Your task to perform on an android device: When is my next appointment? Image 0: 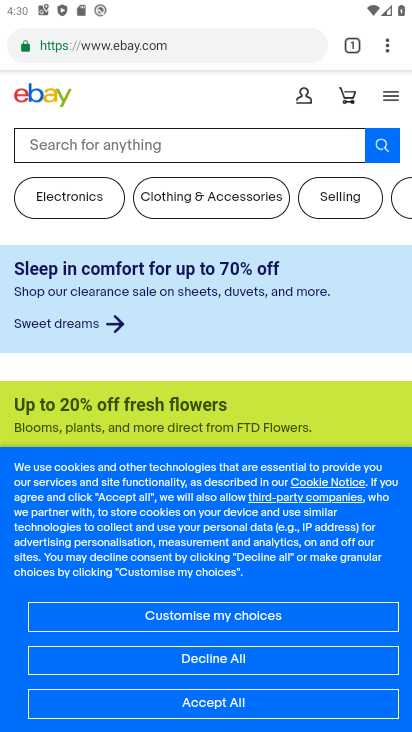
Step 0: press back button
Your task to perform on an android device: When is my next appointment? Image 1: 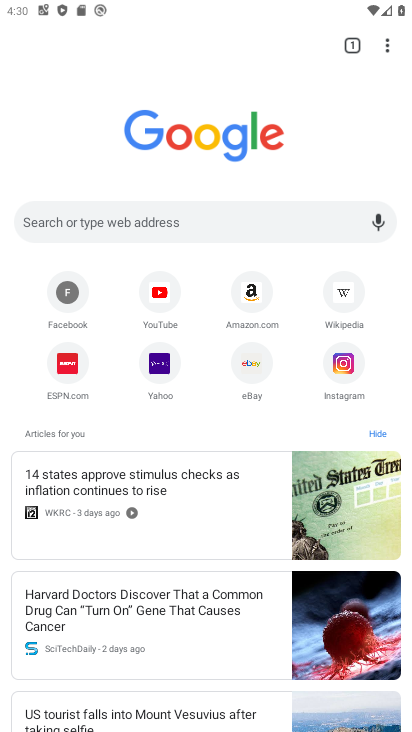
Step 1: press back button
Your task to perform on an android device: When is my next appointment? Image 2: 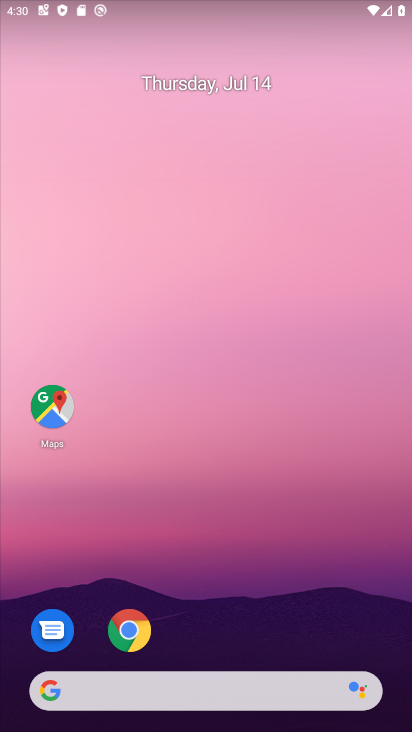
Step 2: drag from (192, 646) to (281, 8)
Your task to perform on an android device: When is my next appointment? Image 3: 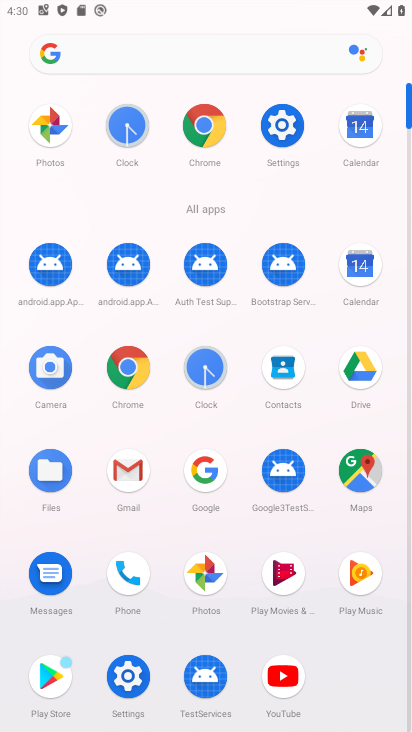
Step 3: click (349, 274)
Your task to perform on an android device: When is my next appointment? Image 4: 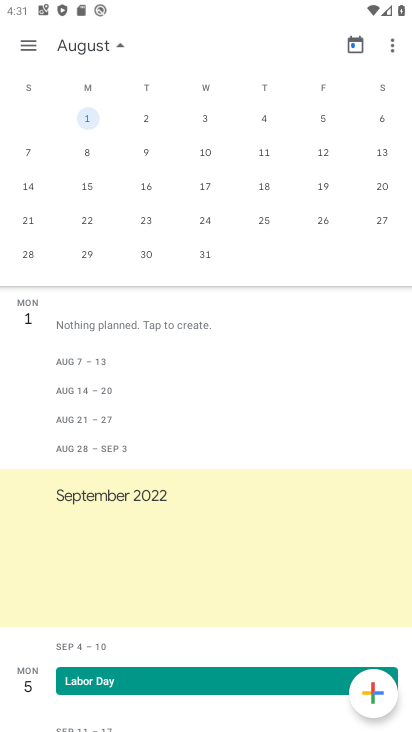
Step 4: drag from (33, 222) to (396, 194)
Your task to perform on an android device: When is my next appointment? Image 5: 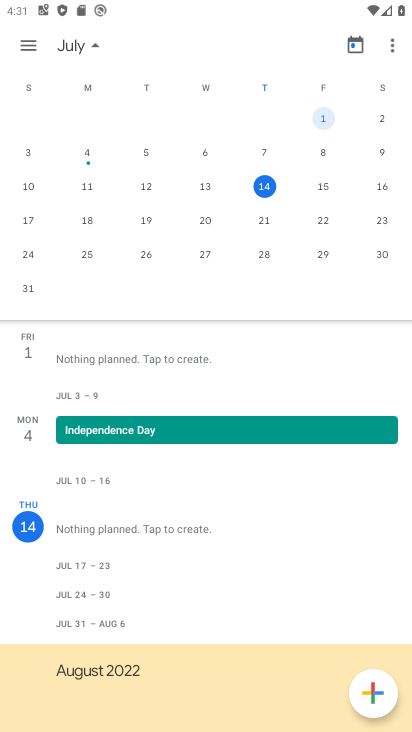
Step 5: click (264, 183)
Your task to perform on an android device: When is my next appointment? Image 6: 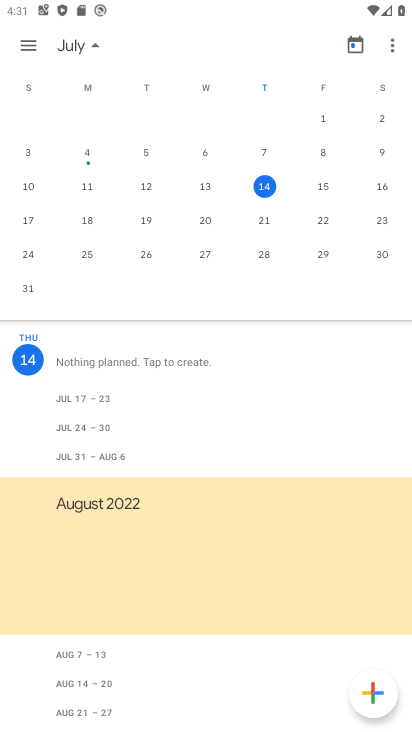
Step 6: task complete